Your task to perform on an android device: remove spam from my inbox in the gmail app Image 0: 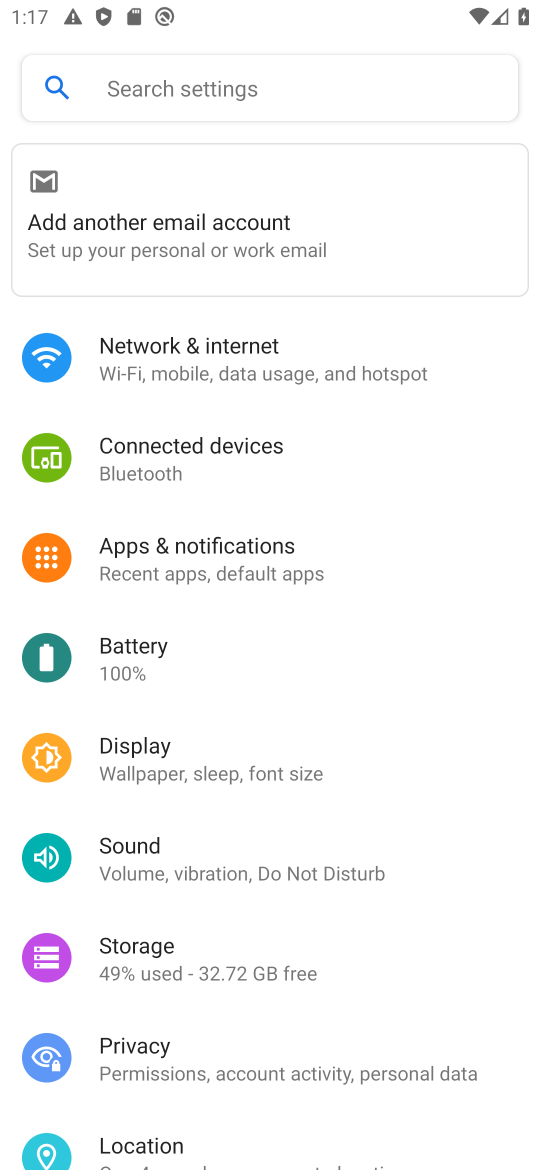
Step 0: task complete